Your task to perform on an android device: Go to battery settings Image 0: 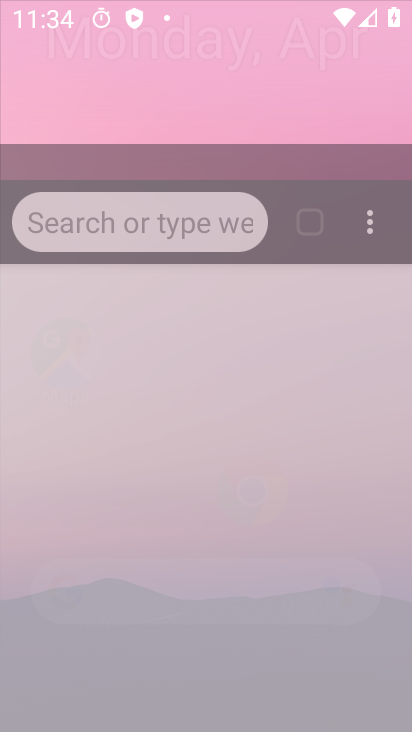
Step 0: click (250, 564)
Your task to perform on an android device: Go to battery settings Image 1: 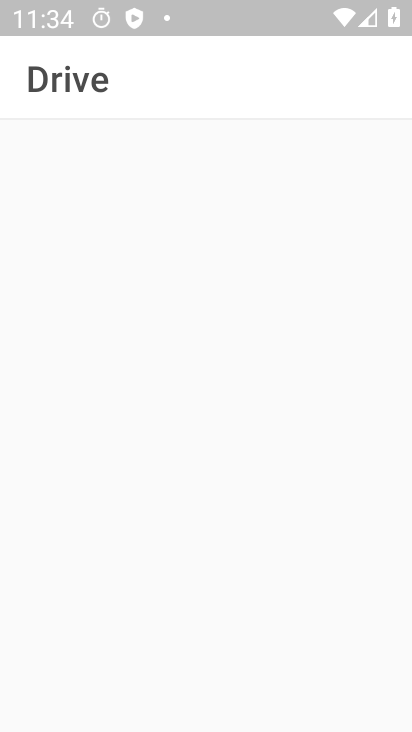
Step 1: drag from (172, 600) to (184, 216)
Your task to perform on an android device: Go to battery settings Image 2: 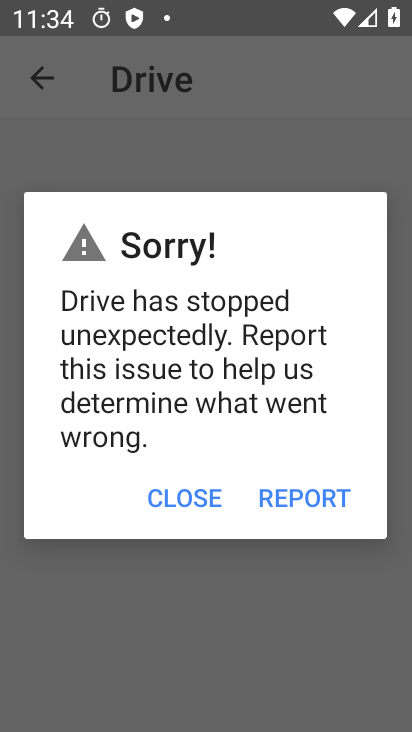
Step 2: press back button
Your task to perform on an android device: Go to battery settings Image 3: 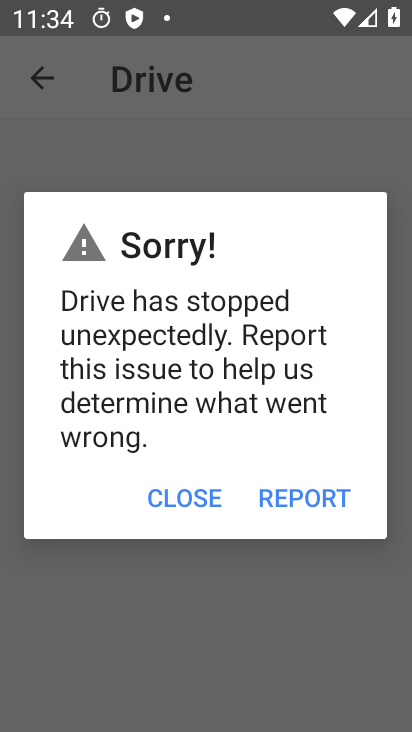
Step 3: press back button
Your task to perform on an android device: Go to battery settings Image 4: 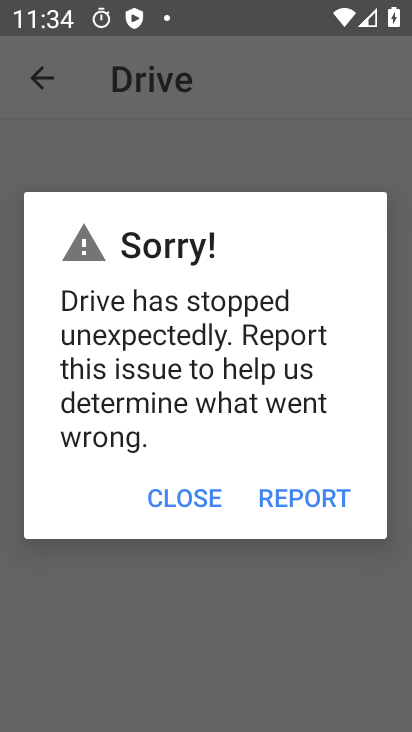
Step 4: press home button
Your task to perform on an android device: Go to battery settings Image 5: 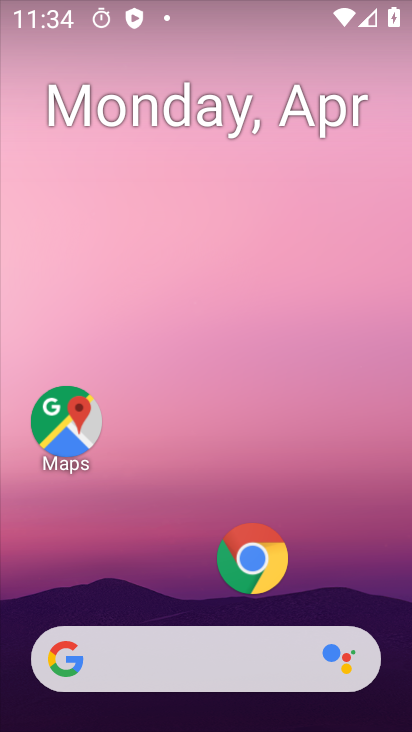
Step 5: drag from (207, 610) to (256, 166)
Your task to perform on an android device: Go to battery settings Image 6: 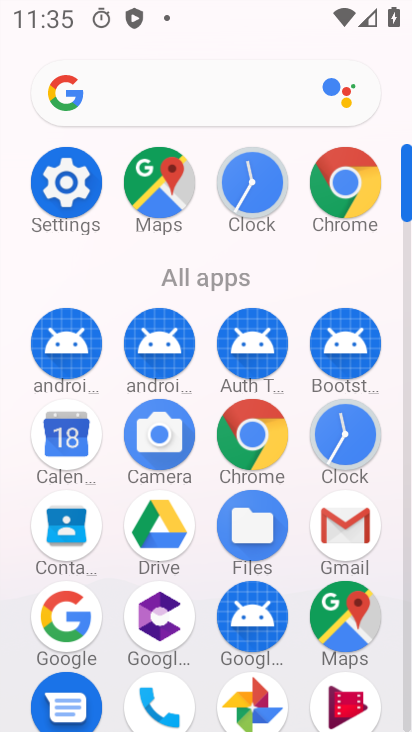
Step 6: drag from (202, 571) to (243, 163)
Your task to perform on an android device: Go to battery settings Image 7: 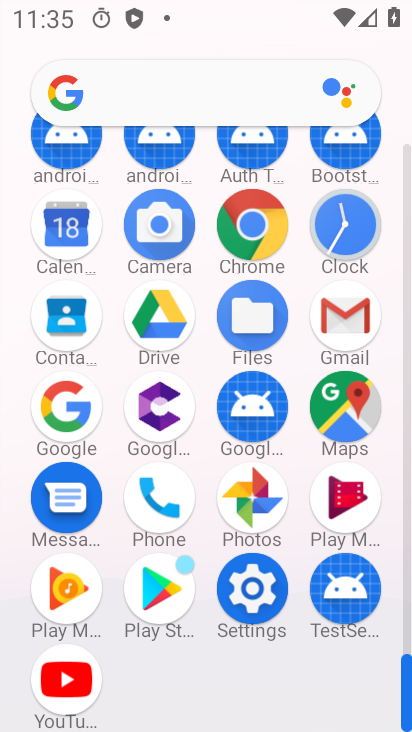
Step 7: click (249, 581)
Your task to perform on an android device: Go to battery settings Image 8: 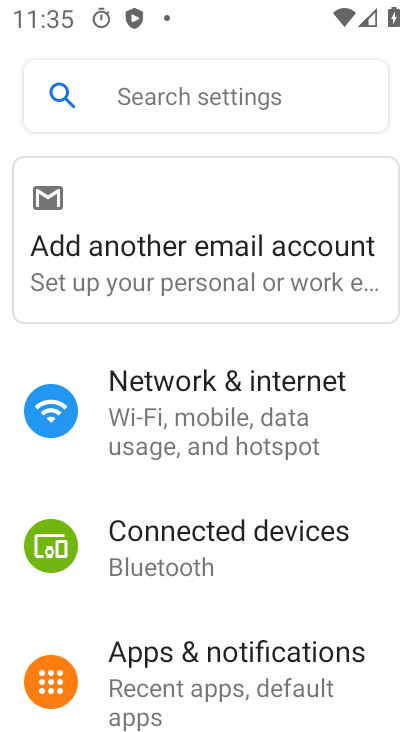
Step 8: drag from (201, 522) to (263, 243)
Your task to perform on an android device: Go to battery settings Image 9: 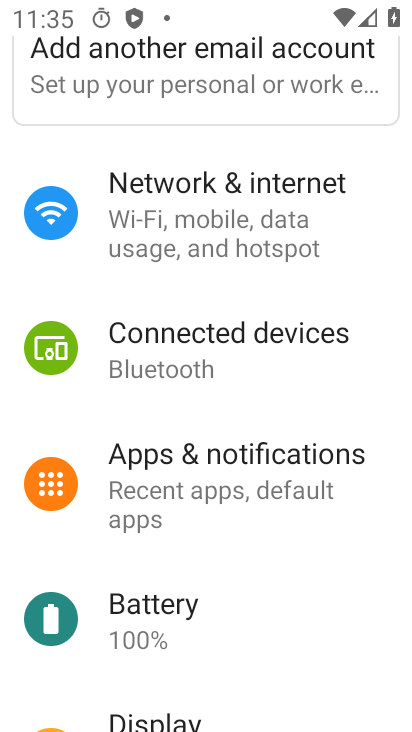
Step 9: click (163, 602)
Your task to perform on an android device: Go to battery settings Image 10: 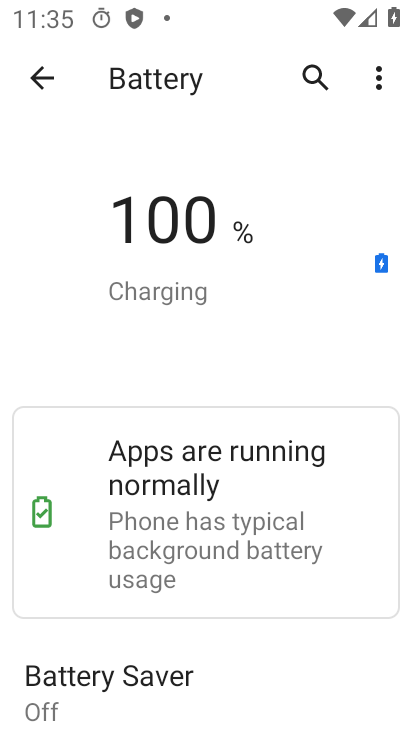
Step 10: task complete